Your task to perform on an android device: Open the calendar app, open the side menu, and click the "Day" option Image 0: 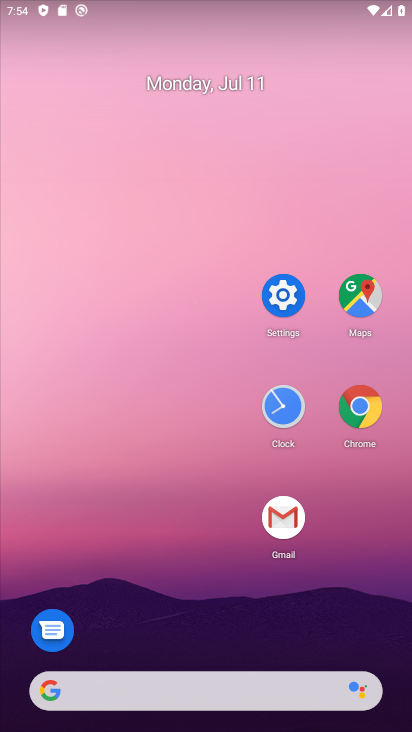
Step 0: drag from (158, 601) to (215, 181)
Your task to perform on an android device: Open the calendar app, open the side menu, and click the "Day" option Image 1: 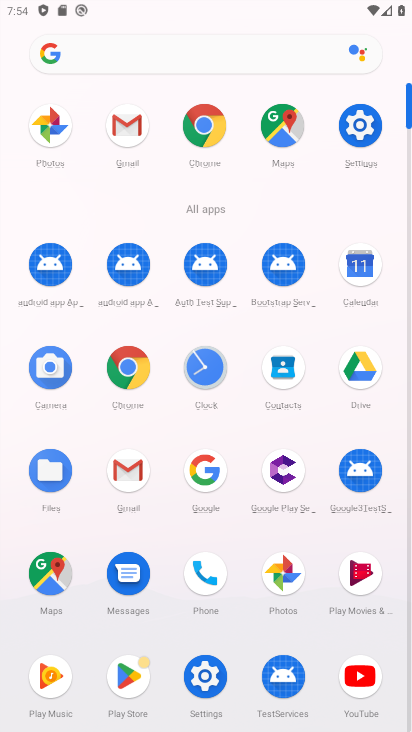
Step 1: click (372, 264)
Your task to perform on an android device: Open the calendar app, open the side menu, and click the "Day" option Image 2: 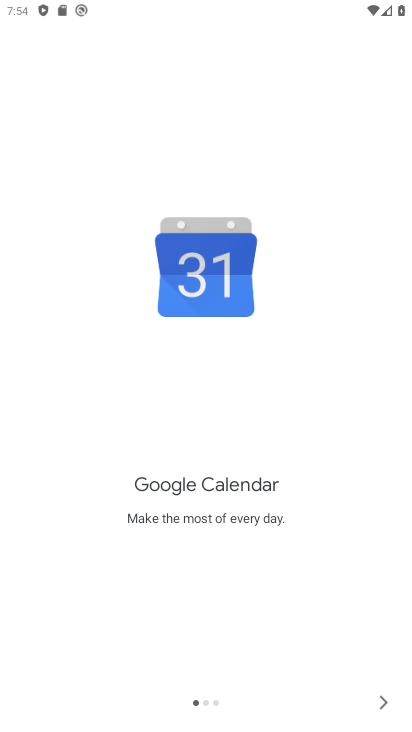
Step 2: click (381, 708)
Your task to perform on an android device: Open the calendar app, open the side menu, and click the "Day" option Image 3: 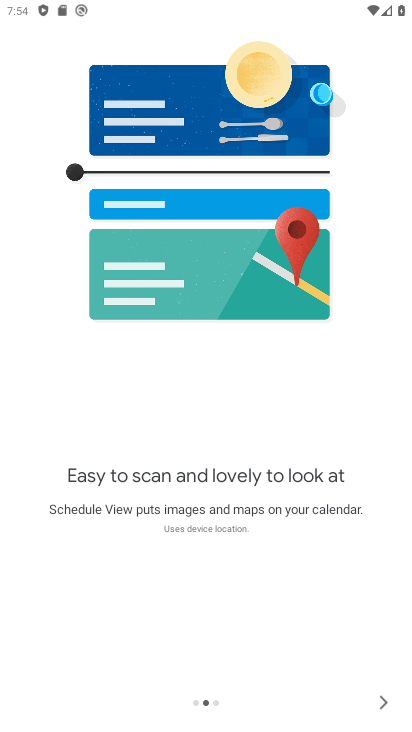
Step 3: click (381, 708)
Your task to perform on an android device: Open the calendar app, open the side menu, and click the "Day" option Image 4: 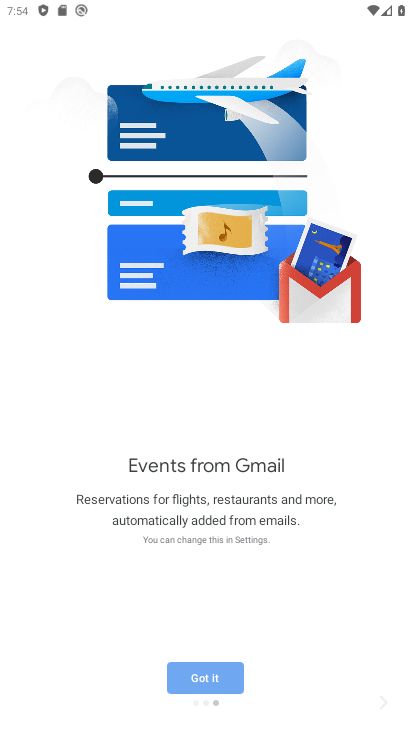
Step 4: click (381, 708)
Your task to perform on an android device: Open the calendar app, open the side menu, and click the "Day" option Image 5: 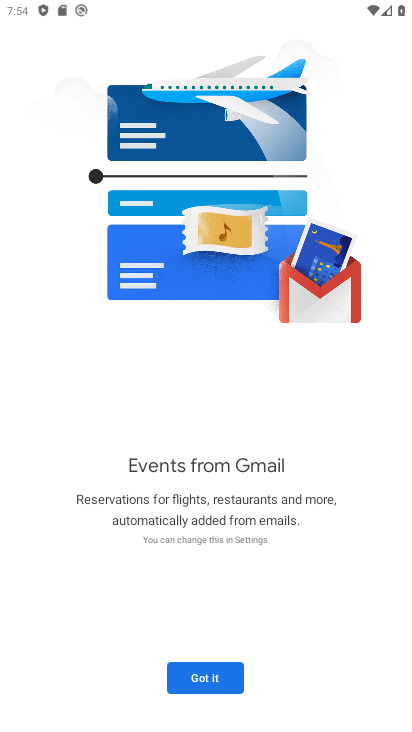
Step 5: click (219, 671)
Your task to perform on an android device: Open the calendar app, open the side menu, and click the "Day" option Image 6: 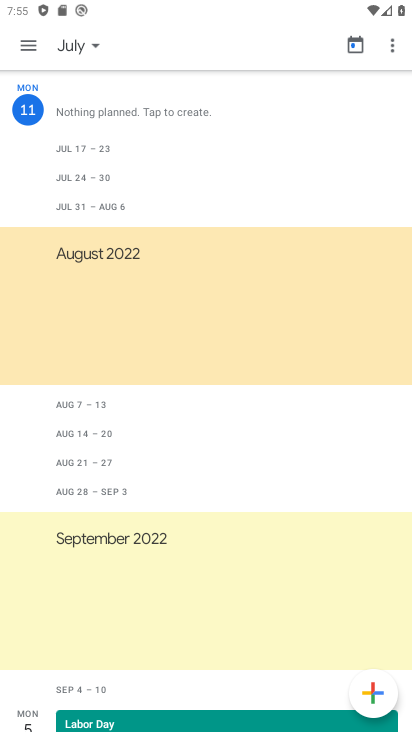
Step 6: click (32, 43)
Your task to perform on an android device: Open the calendar app, open the side menu, and click the "Day" option Image 7: 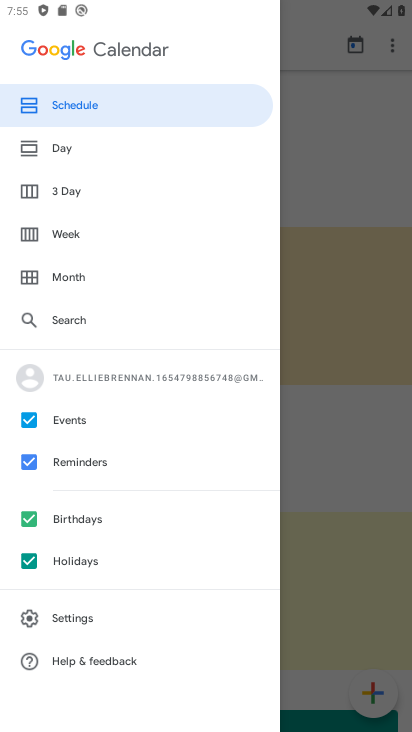
Step 7: click (92, 141)
Your task to perform on an android device: Open the calendar app, open the side menu, and click the "Day" option Image 8: 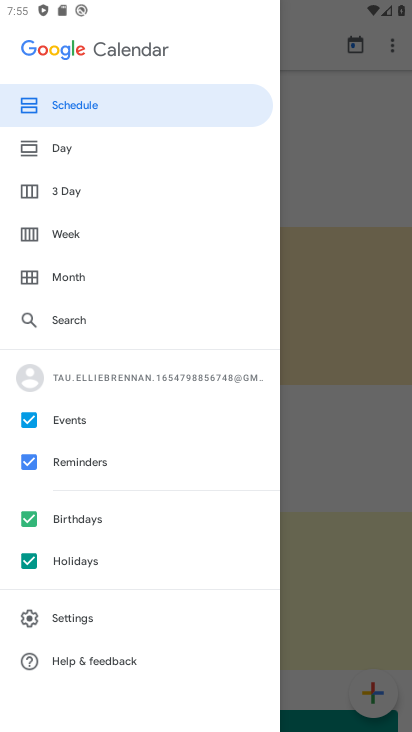
Step 8: click (96, 153)
Your task to perform on an android device: Open the calendar app, open the side menu, and click the "Day" option Image 9: 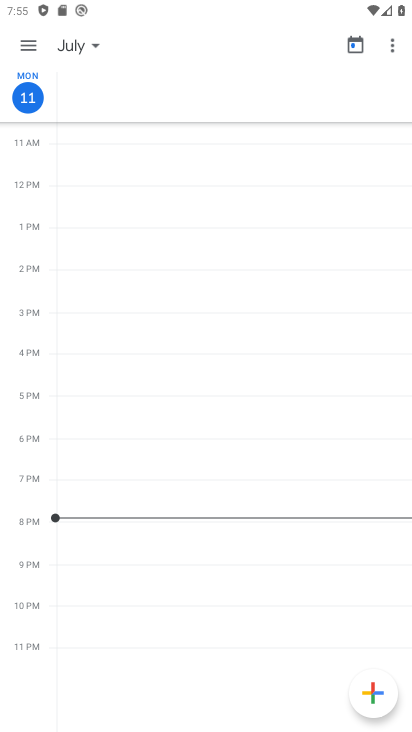
Step 9: task complete